Your task to perform on an android device: Open Chrome and go to settings Image 0: 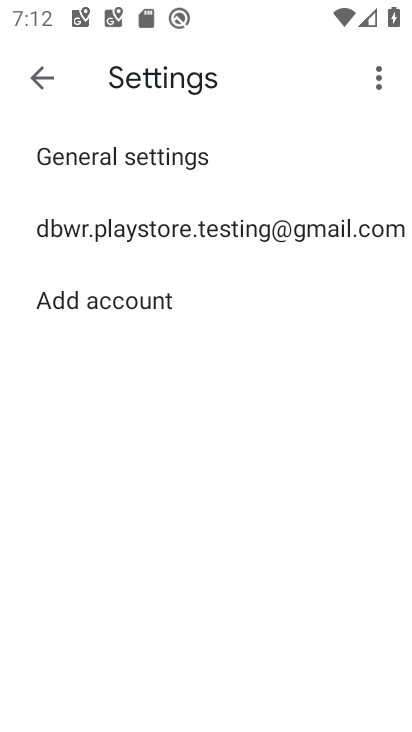
Step 0: press home button
Your task to perform on an android device: Open Chrome and go to settings Image 1: 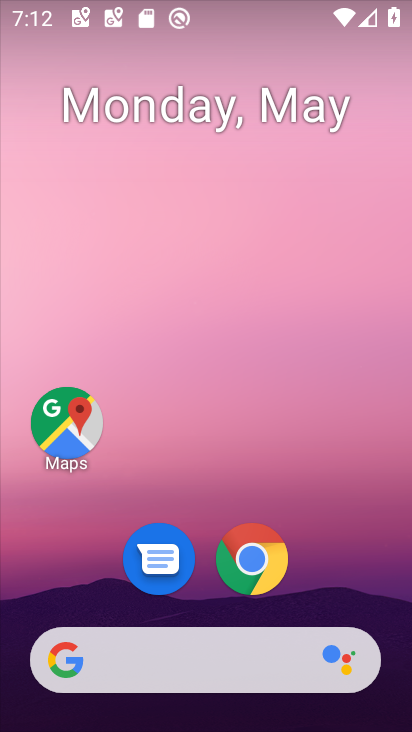
Step 1: drag from (394, 639) to (275, 64)
Your task to perform on an android device: Open Chrome and go to settings Image 2: 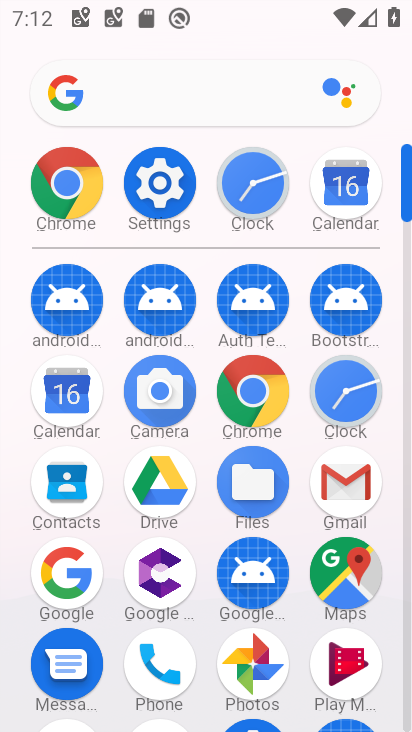
Step 2: click (40, 182)
Your task to perform on an android device: Open Chrome and go to settings Image 3: 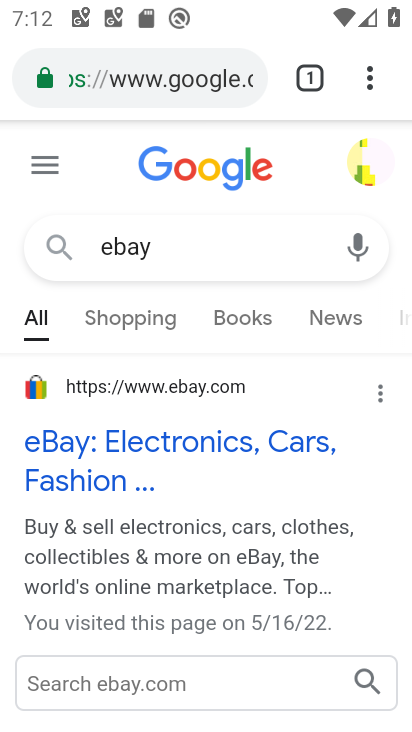
Step 3: press back button
Your task to perform on an android device: Open Chrome and go to settings Image 4: 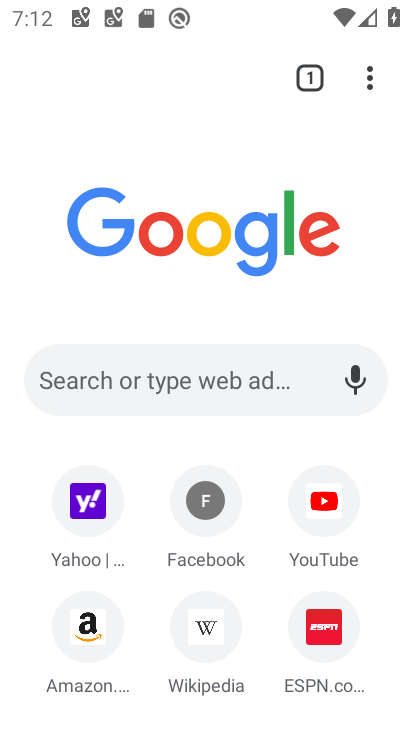
Step 4: click (360, 61)
Your task to perform on an android device: Open Chrome and go to settings Image 5: 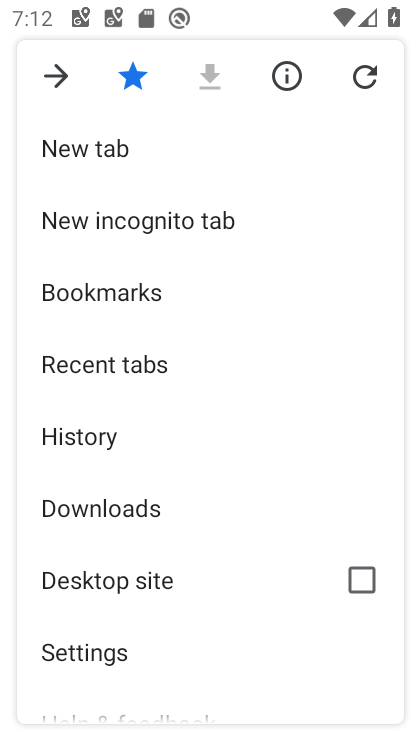
Step 5: click (168, 655)
Your task to perform on an android device: Open Chrome and go to settings Image 6: 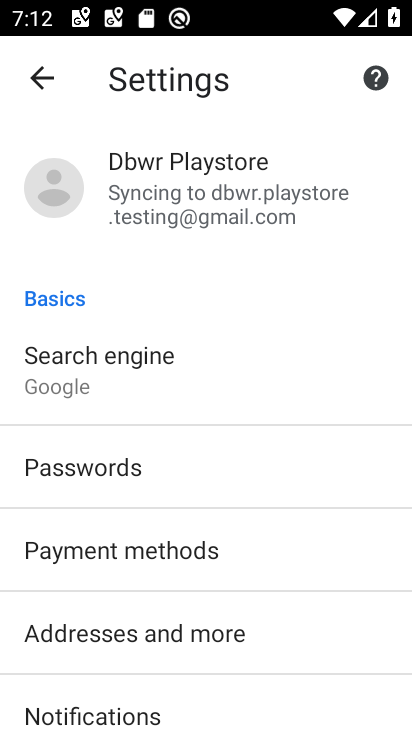
Step 6: task complete